Your task to perform on an android device: Check the news Image 0: 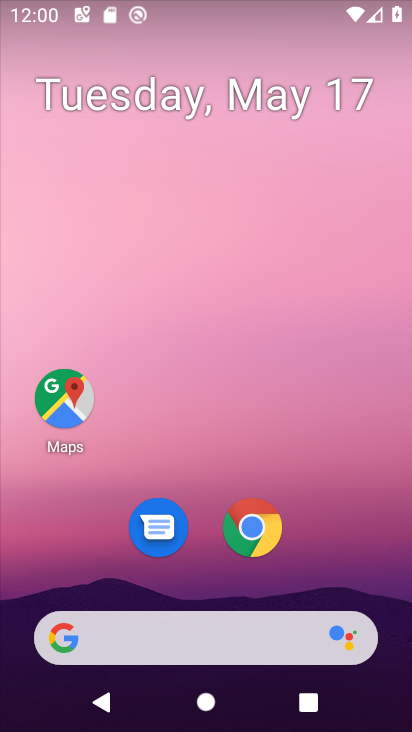
Step 0: drag from (303, 550) to (348, 185)
Your task to perform on an android device: Check the news Image 1: 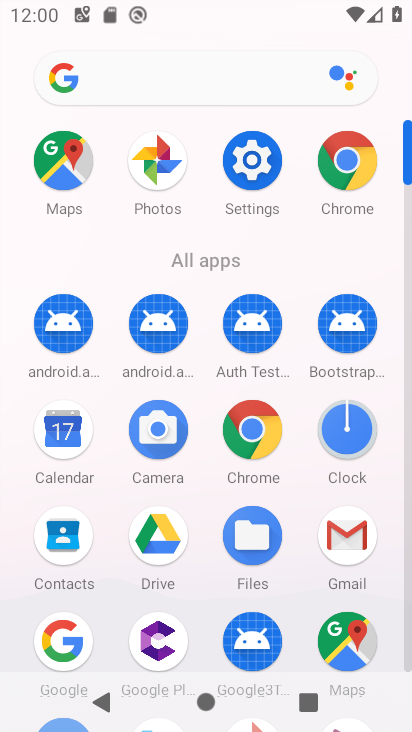
Step 1: click (81, 627)
Your task to perform on an android device: Check the news Image 2: 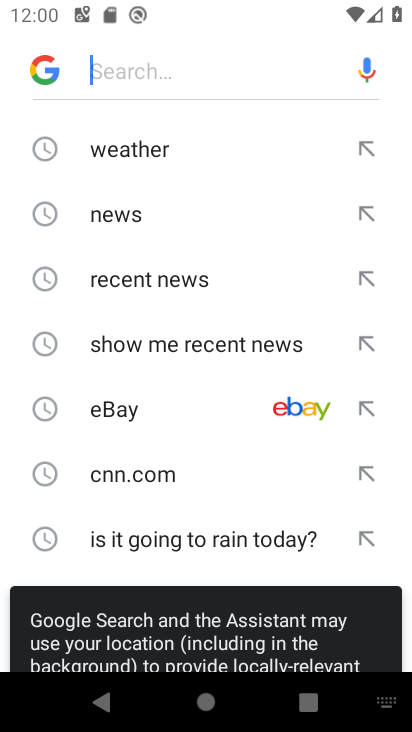
Step 2: click (159, 221)
Your task to perform on an android device: Check the news Image 3: 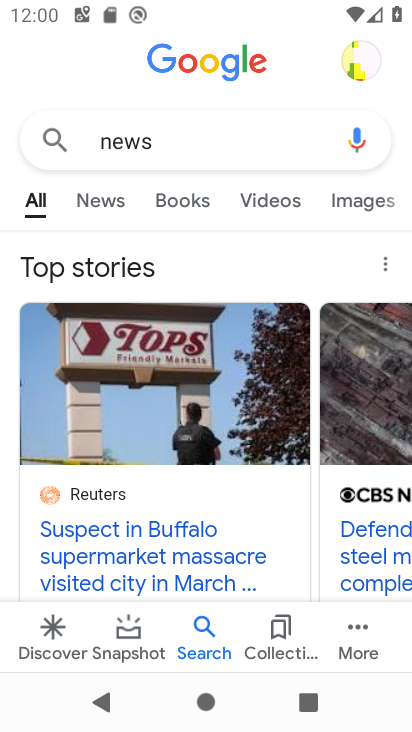
Step 3: task complete